Your task to perform on an android device: change the clock style Image 0: 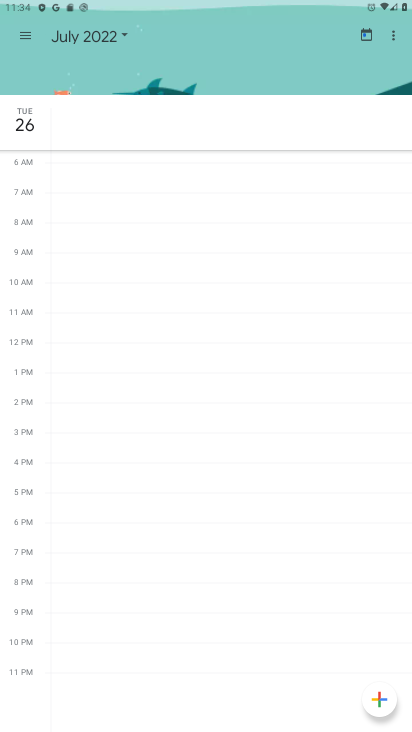
Step 0: press home button
Your task to perform on an android device: change the clock style Image 1: 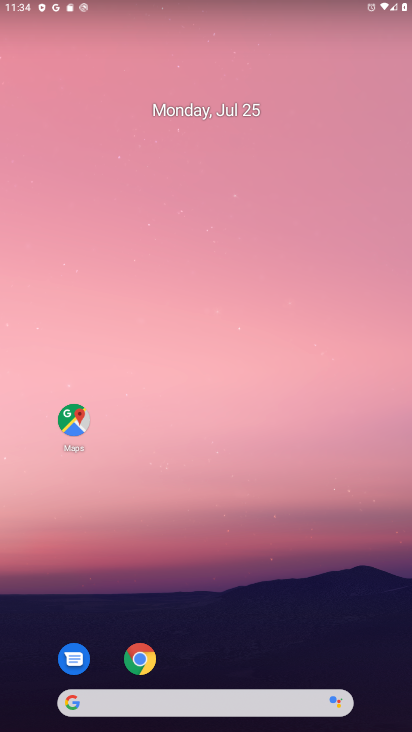
Step 1: drag from (221, 615) to (172, 235)
Your task to perform on an android device: change the clock style Image 2: 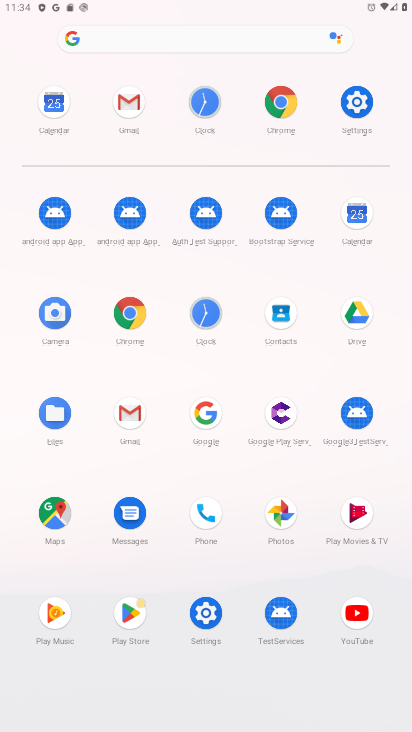
Step 2: click (204, 310)
Your task to perform on an android device: change the clock style Image 3: 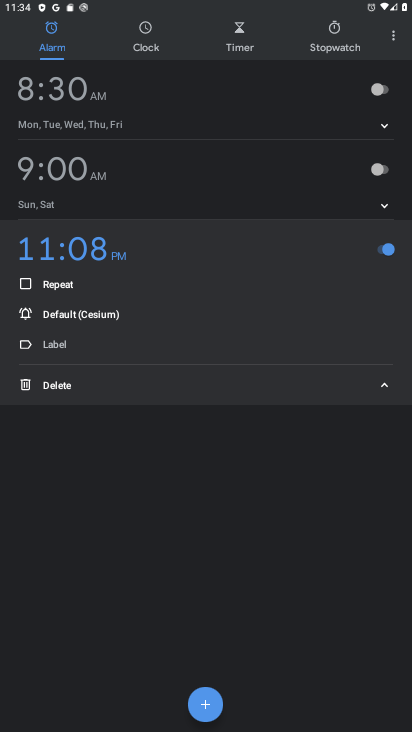
Step 3: click (392, 31)
Your task to perform on an android device: change the clock style Image 4: 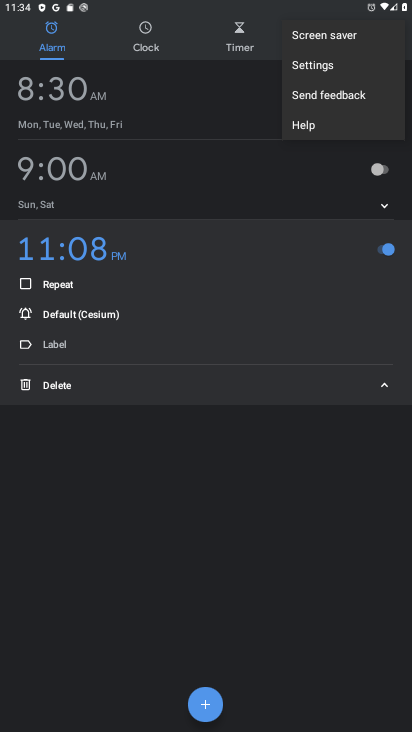
Step 4: click (325, 64)
Your task to perform on an android device: change the clock style Image 5: 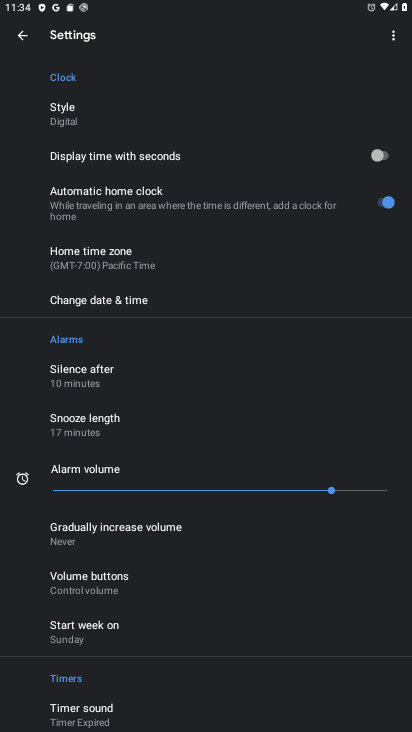
Step 5: click (64, 115)
Your task to perform on an android device: change the clock style Image 6: 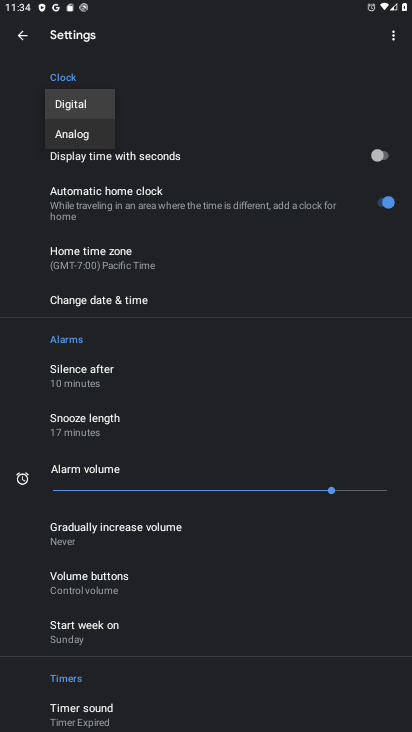
Step 6: click (79, 132)
Your task to perform on an android device: change the clock style Image 7: 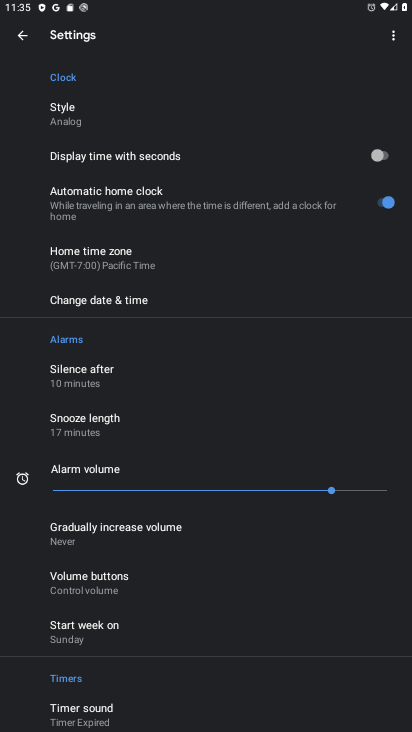
Step 7: task complete